Your task to perform on an android device: Show me productivity apps on the Play Store Image 0: 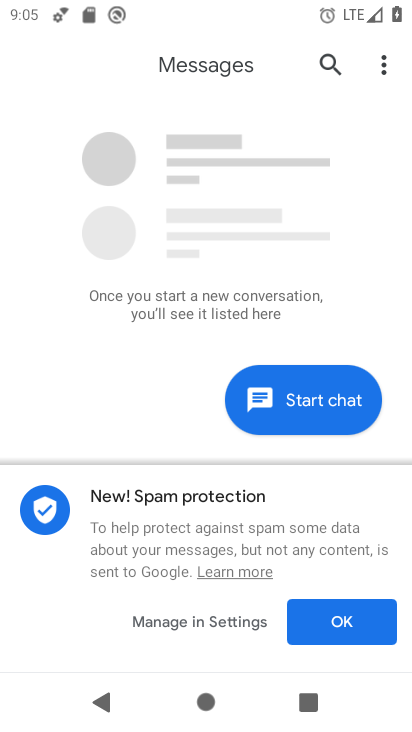
Step 0: press home button
Your task to perform on an android device: Show me productivity apps on the Play Store Image 1: 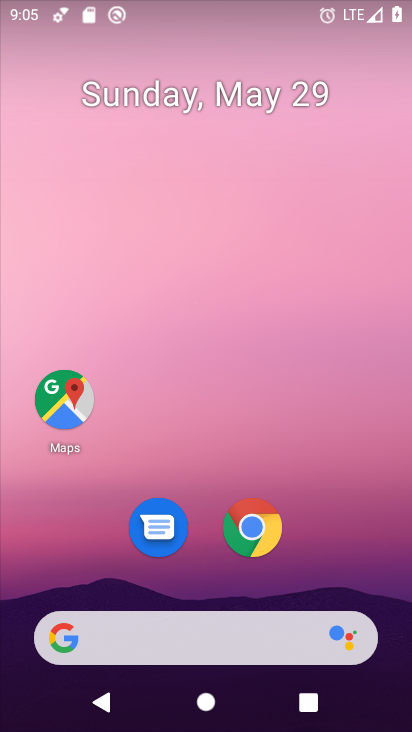
Step 1: drag from (215, 583) to (206, 103)
Your task to perform on an android device: Show me productivity apps on the Play Store Image 2: 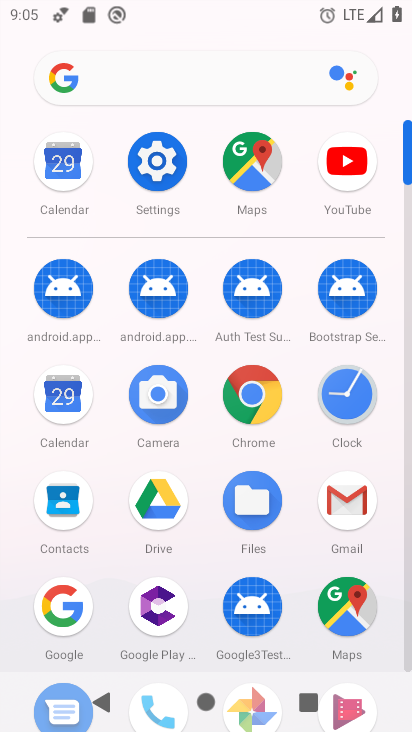
Step 2: drag from (198, 580) to (247, 152)
Your task to perform on an android device: Show me productivity apps on the Play Store Image 3: 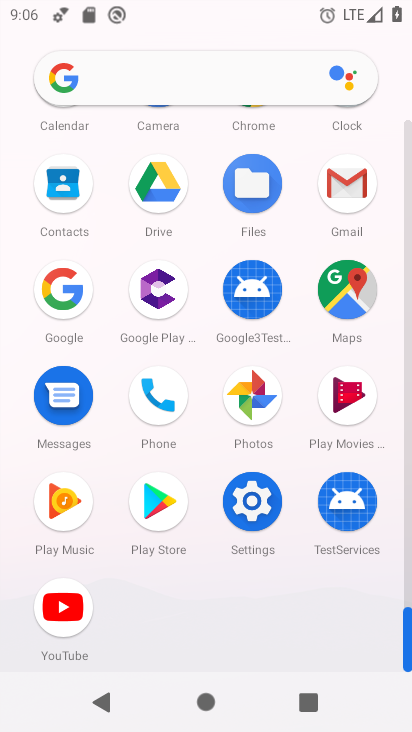
Step 3: click (151, 492)
Your task to perform on an android device: Show me productivity apps on the Play Store Image 4: 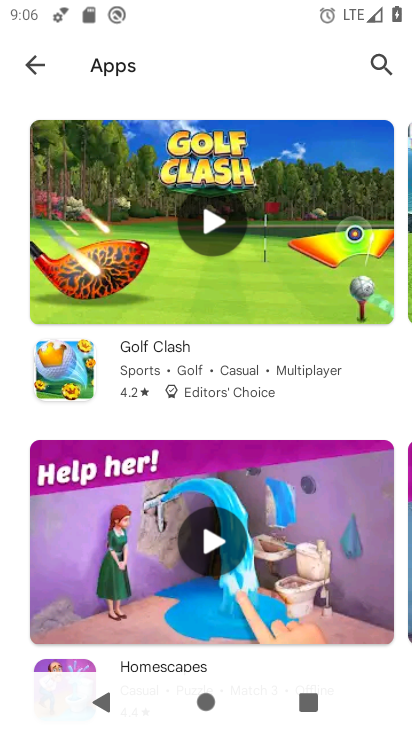
Step 4: click (34, 75)
Your task to perform on an android device: Show me productivity apps on the Play Store Image 5: 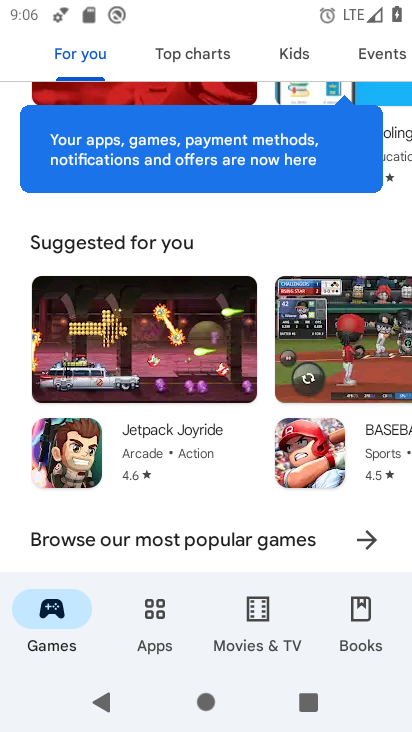
Step 5: click (150, 611)
Your task to perform on an android device: Show me productivity apps on the Play Store Image 6: 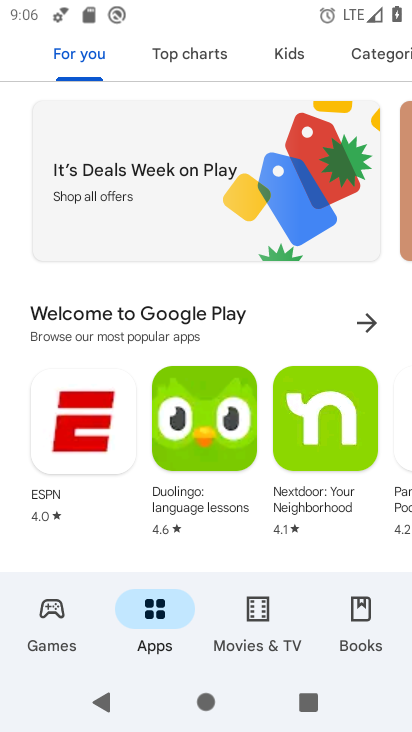
Step 6: click (362, 52)
Your task to perform on an android device: Show me productivity apps on the Play Store Image 7: 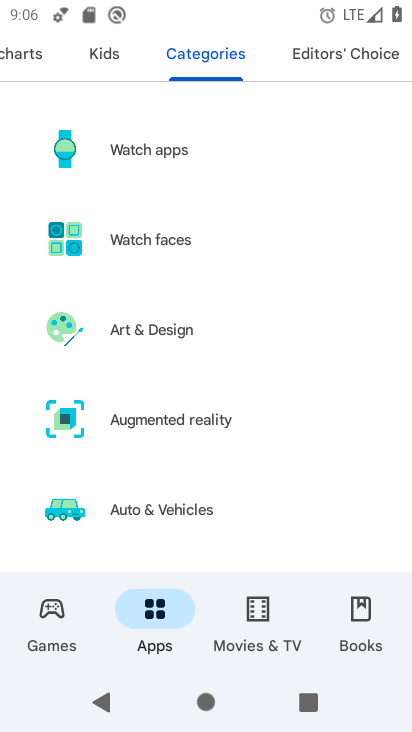
Step 7: drag from (171, 546) to (157, 18)
Your task to perform on an android device: Show me productivity apps on the Play Store Image 8: 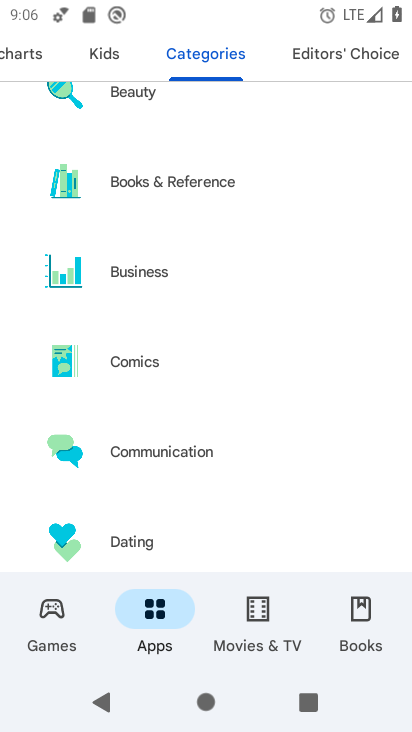
Step 8: drag from (198, 548) to (214, 52)
Your task to perform on an android device: Show me productivity apps on the Play Store Image 9: 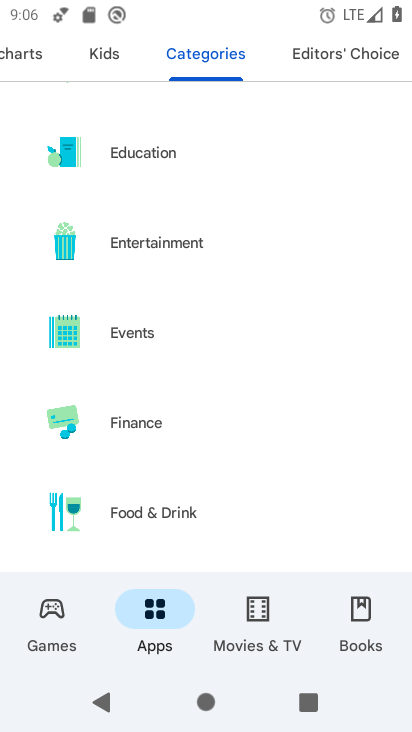
Step 9: drag from (206, 535) to (185, 144)
Your task to perform on an android device: Show me productivity apps on the Play Store Image 10: 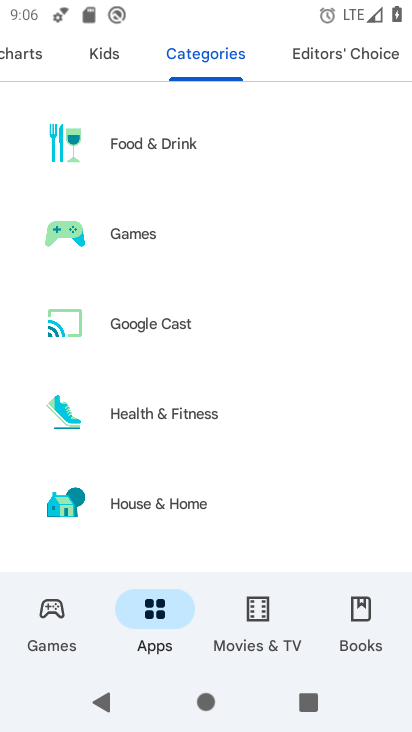
Step 10: drag from (212, 526) to (206, 121)
Your task to perform on an android device: Show me productivity apps on the Play Store Image 11: 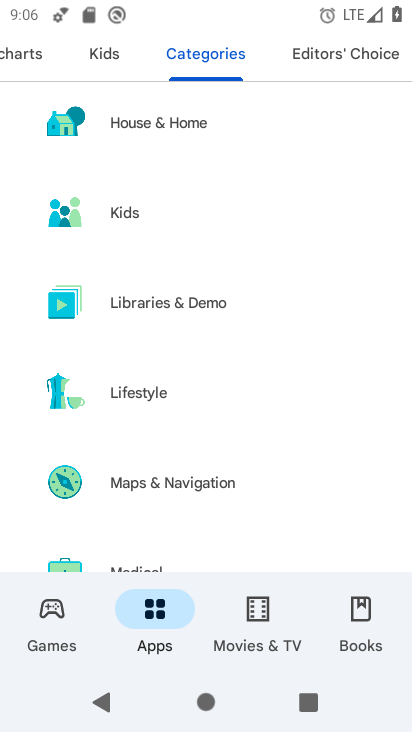
Step 11: drag from (172, 521) to (188, 77)
Your task to perform on an android device: Show me productivity apps on the Play Store Image 12: 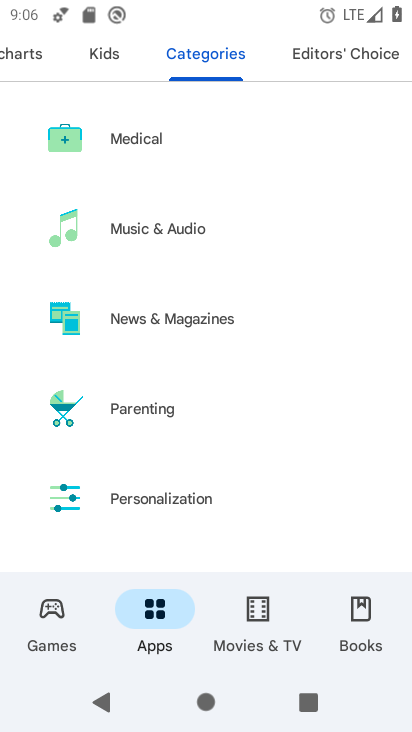
Step 12: drag from (199, 517) to (215, 117)
Your task to perform on an android device: Show me productivity apps on the Play Store Image 13: 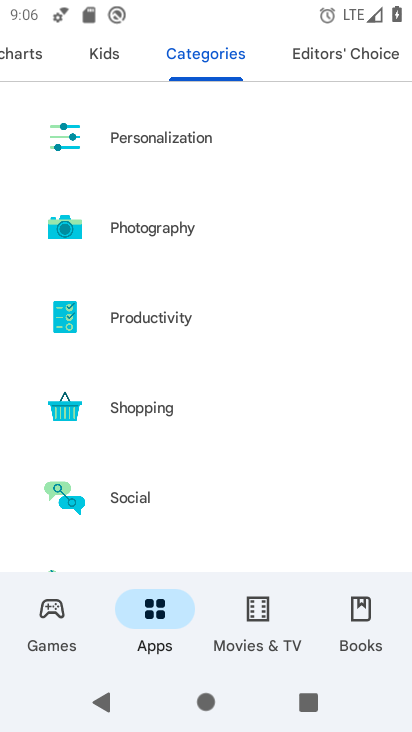
Step 13: click (104, 314)
Your task to perform on an android device: Show me productivity apps on the Play Store Image 14: 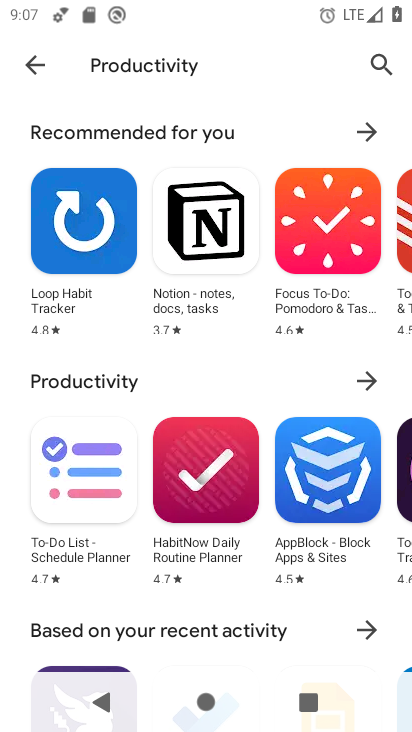
Step 14: task complete